Your task to perform on an android device: Open Google Chrome and open the bookmarks view Image 0: 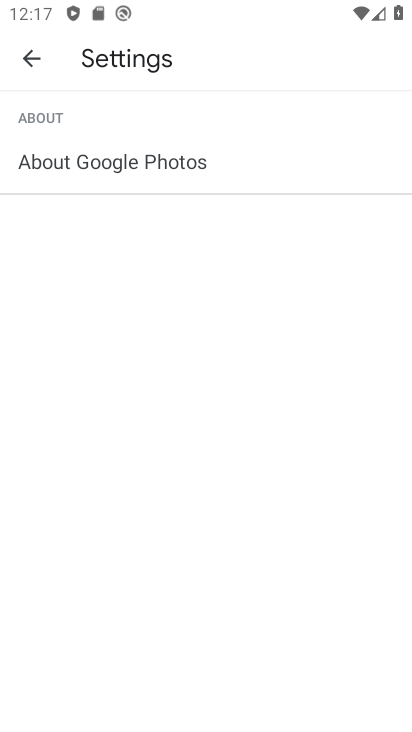
Step 0: press back button
Your task to perform on an android device: Open Google Chrome and open the bookmarks view Image 1: 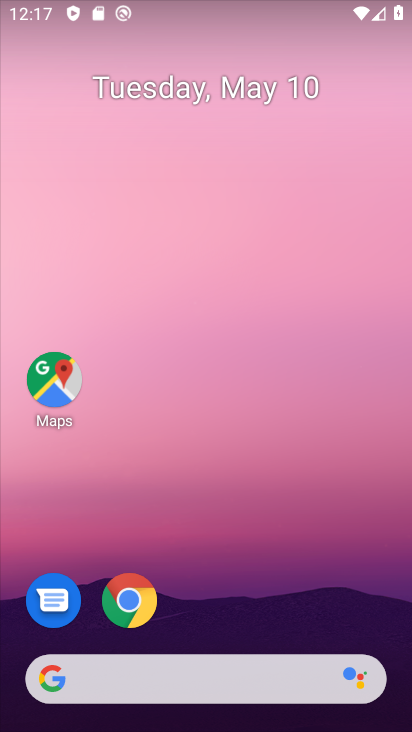
Step 1: click (131, 610)
Your task to perform on an android device: Open Google Chrome and open the bookmarks view Image 2: 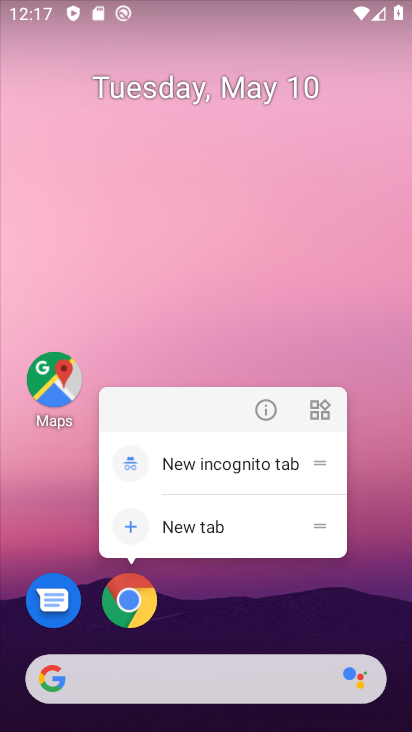
Step 2: click (131, 608)
Your task to perform on an android device: Open Google Chrome and open the bookmarks view Image 3: 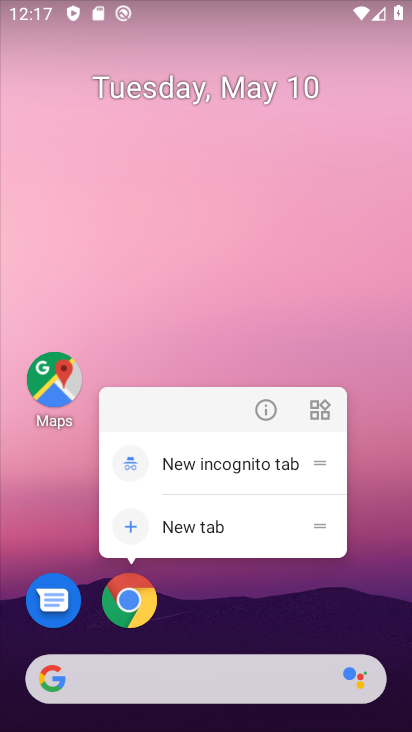
Step 3: click (120, 596)
Your task to perform on an android device: Open Google Chrome and open the bookmarks view Image 4: 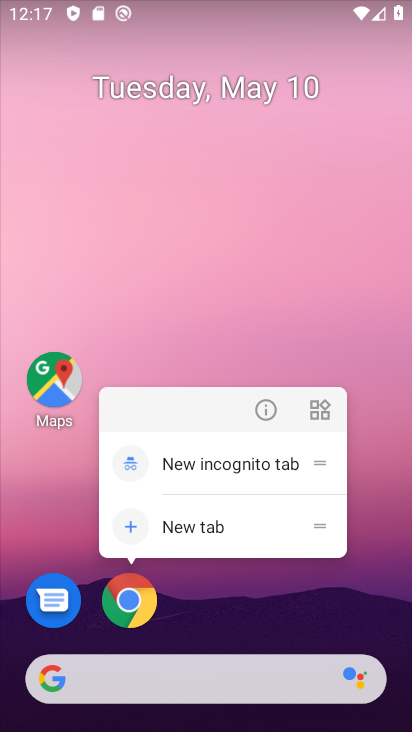
Step 4: click (131, 613)
Your task to perform on an android device: Open Google Chrome and open the bookmarks view Image 5: 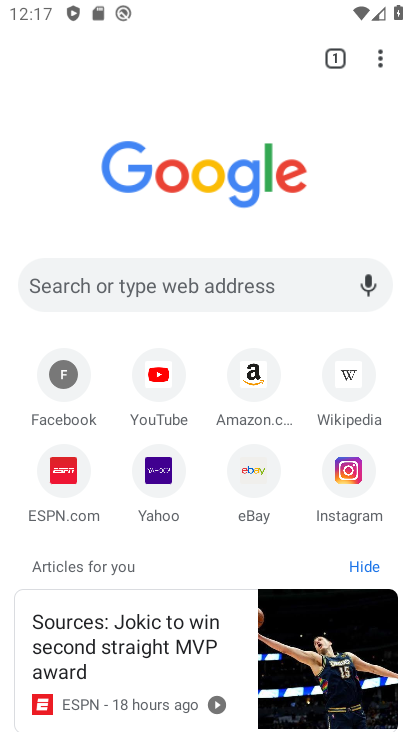
Step 5: task complete